Your task to perform on an android device: find which apps use the phone's location Image 0: 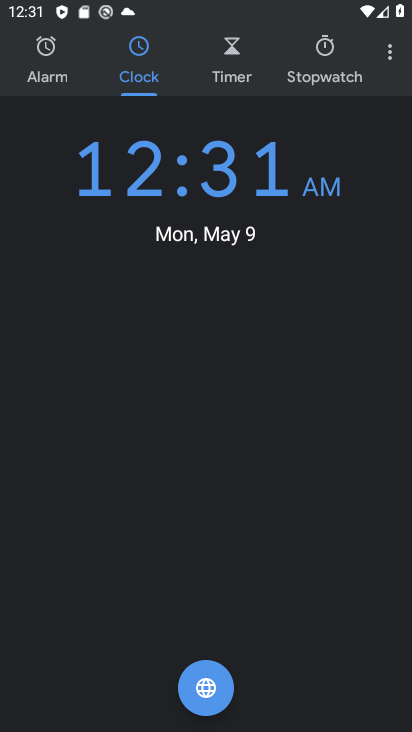
Step 0: press back button
Your task to perform on an android device: find which apps use the phone's location Image 1: 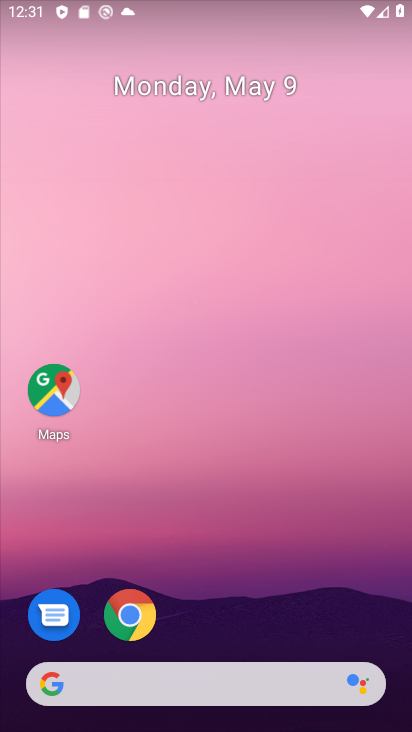
Step 1: drag from (253, 572) to (408, 7)
Your task to perform on an android device: find which apps use the phone's location Image 2: 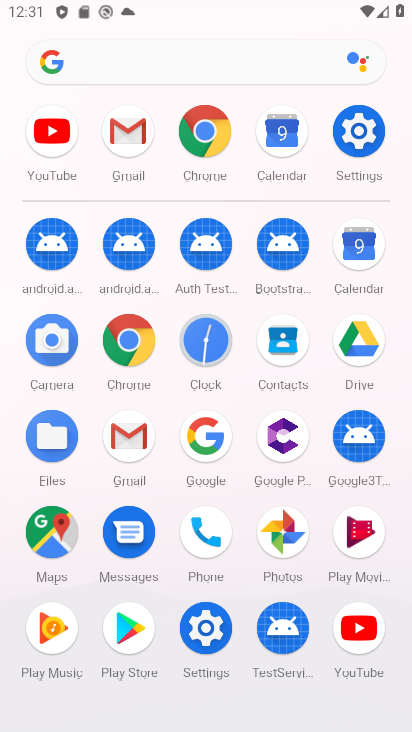
Step 2: click (358, 128)
Your task to perform on an android device: find which apps use the phone's location Image 3: 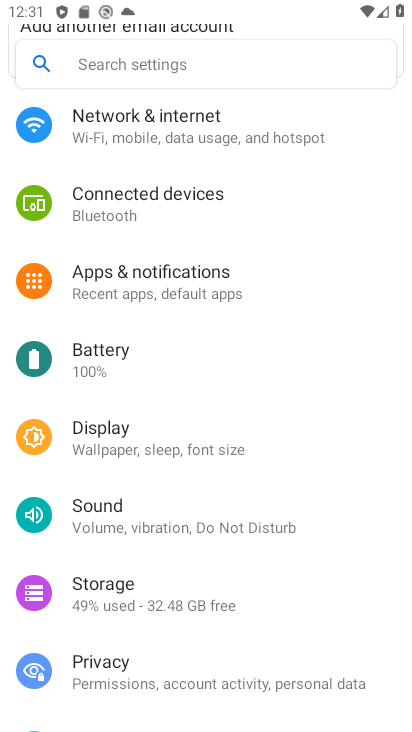
Step 3: drag from (152, 417) to (195, 303)
Your task to perform on an android device: find which apps use the phone's location Image 4: 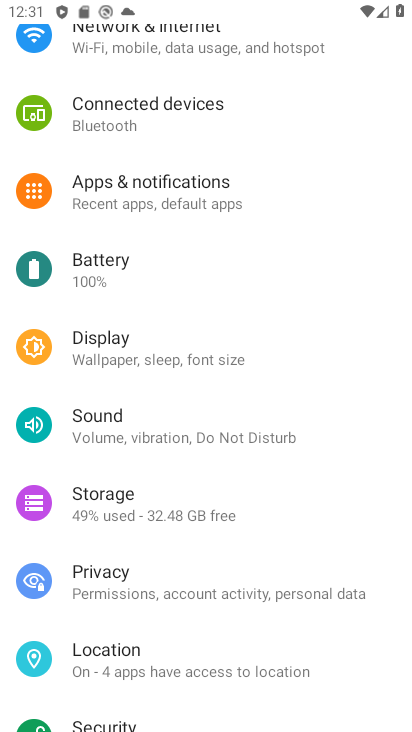
Step 4: drag from (190, 495) to (262, 375)
Your task to perform on an android device: find which apps use the phone's location Image 5: 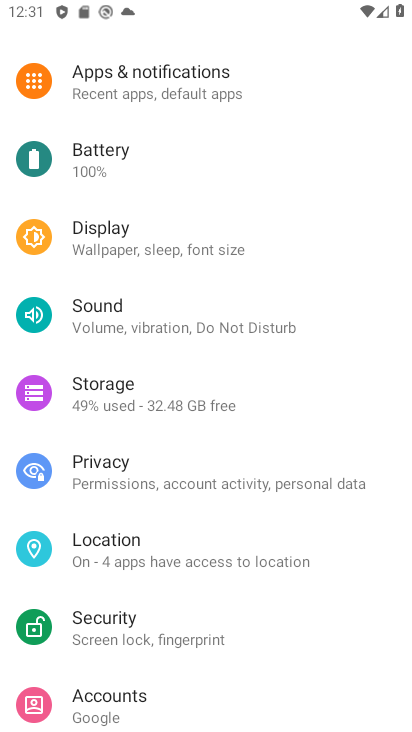
Step 5: click (130, 542)
Your task to perform on an android device: find which apps use the phone's location Image 6: 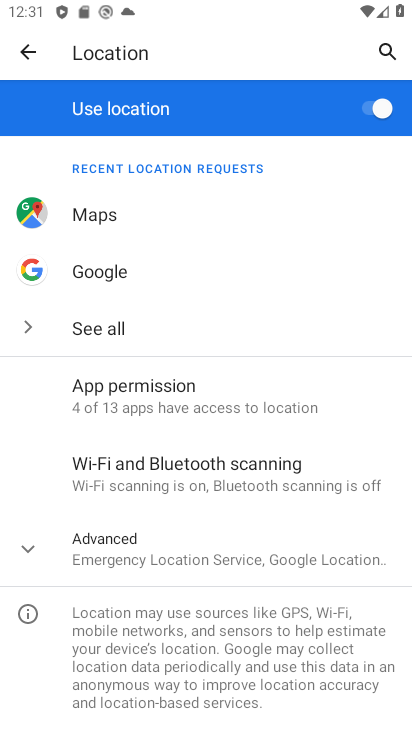
Step 6: click (169, 382)
Your task to perform on an android device: find which apps use the phone's location Image 7: 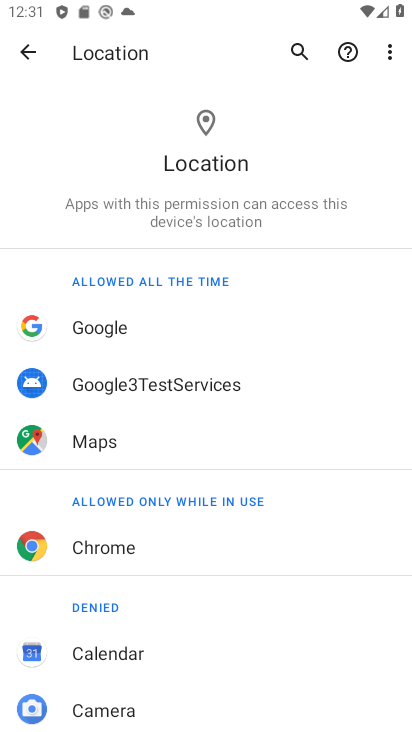
Step 7: click (120, 437)
Your task to perform on an android device: find which apps use the phone's location Image 8: 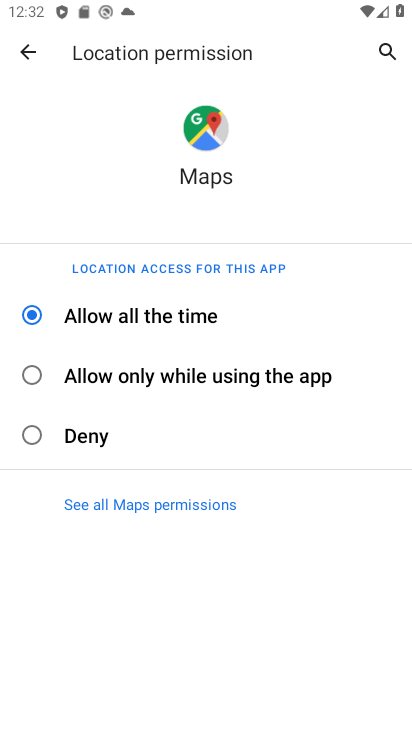
Step 8: task complete